Your task to perform on an android device: turn notification dots on Image 0: 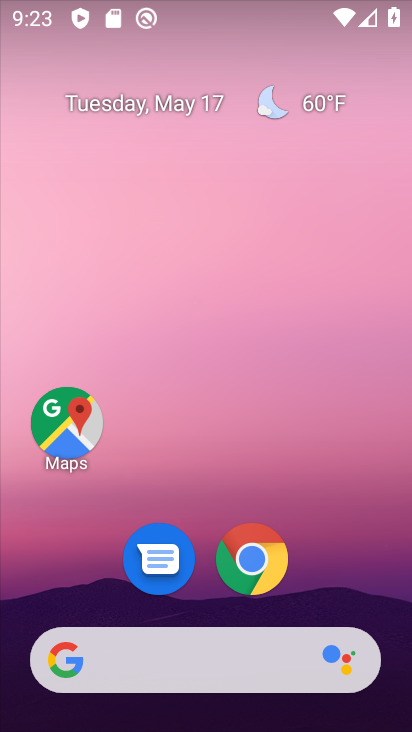
Step 0: drag from (329, 462) to (405, 123)
Your task to perform on an android device: turn notification dots on Image 1: 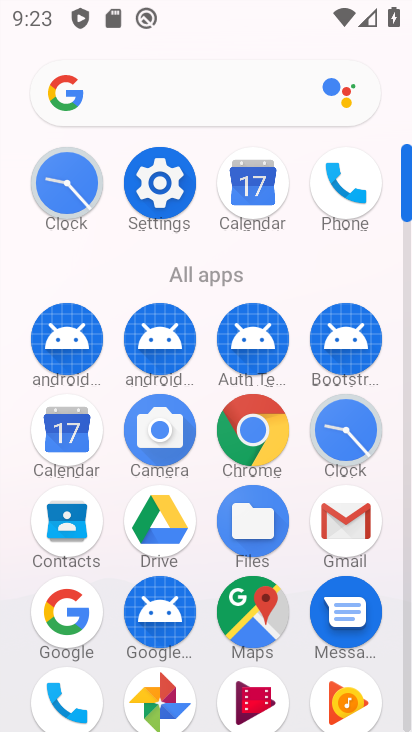
Step 1: click (160, 202)
Your task to perform on an android device: turn notification dots on Image 2: 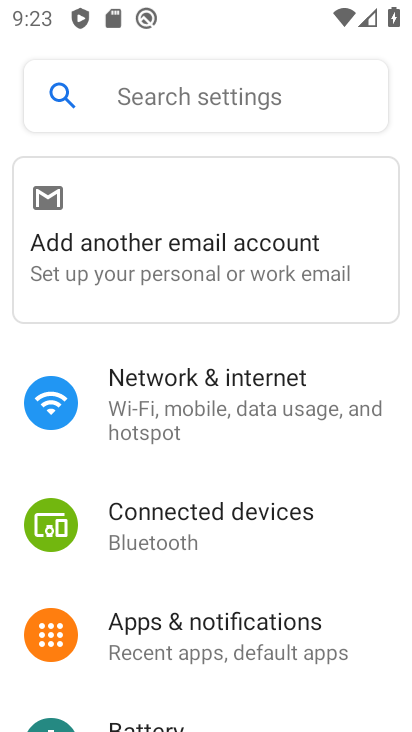
Step 2: drag from (251, 620) to (322, 324)
Your task to perform on an android device: turn notification dots on Image 3: 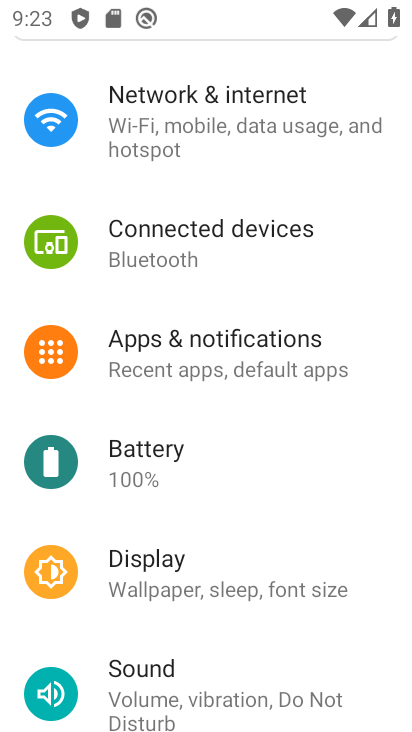
Step 3: click (271, 370)
Your task to perform on an android device: turn notification dots on Image 4: 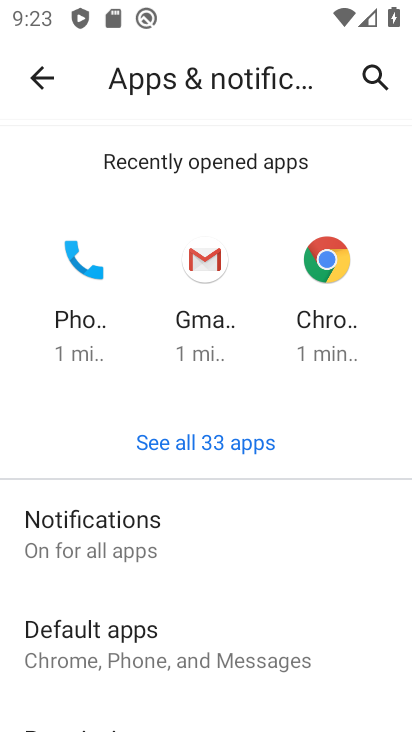
Step 4: drag from (282, 629) to (362, 308)
Your task to perform on an android device: turn notification dots on Image 5: 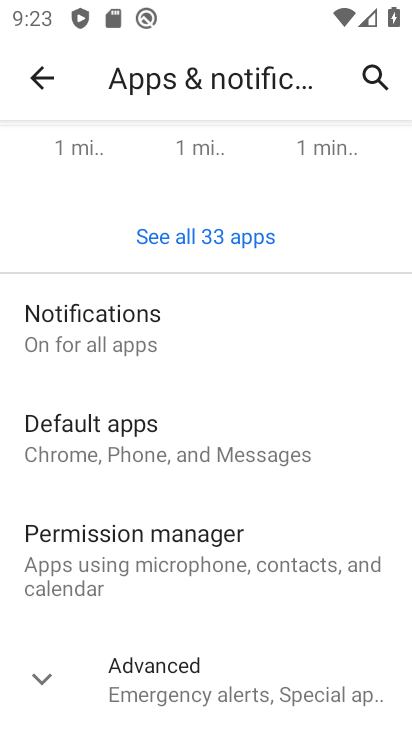
Step 5: click (82, 335)
Your task to perform on an android device: turn notification dots on Image 6: 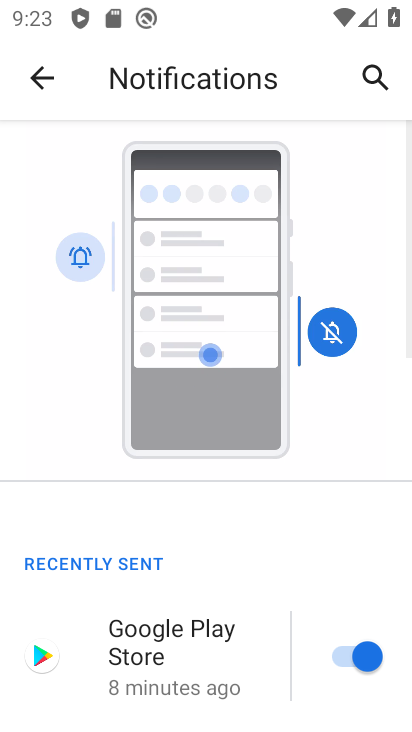
Step 6: drag from (228, 589) to (292, 302)
Your task to perform on an android device: turn notification dots on Image 7: 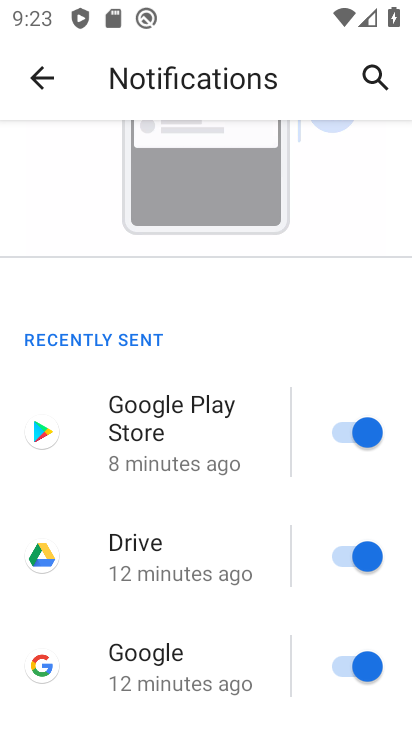
Step 7: drag from (229, 676) to (299, 290)
Your task to perform on an android device: turn notification dots on Image 8: 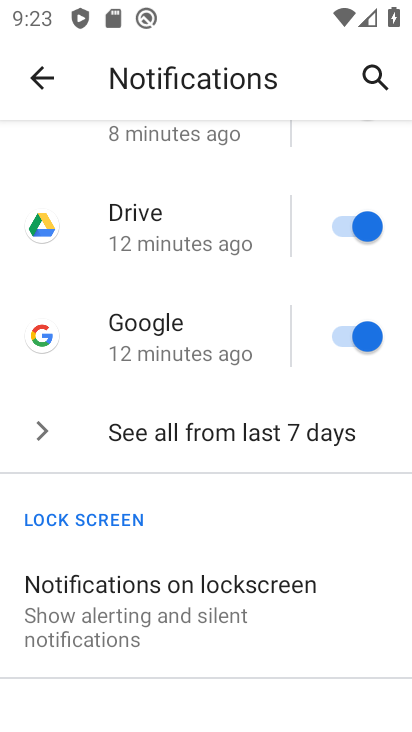
Step 8: drag from (223, 650) to (337, 352)
Your task to perform on an android device: turn notification dots on Image 9: 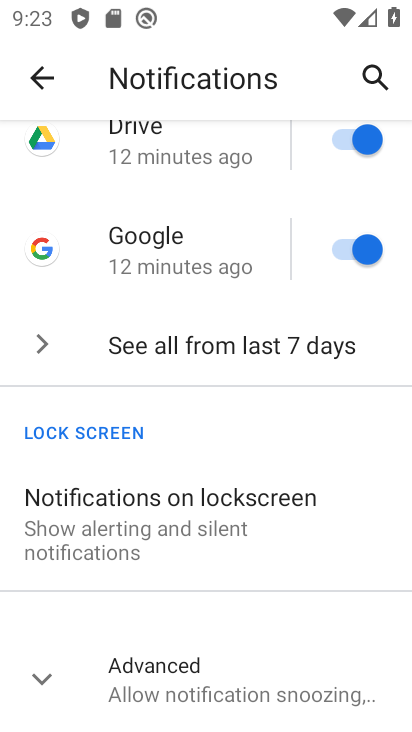
Step 9: click (213, 694)
Your task to perform on an android device: turn notification dots on Image 10: 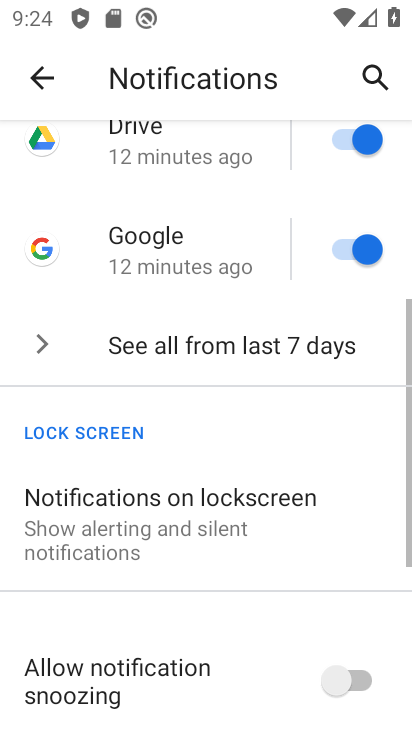
Step 10: task complete